Your task to perform on an android device: Open the map Image 0: 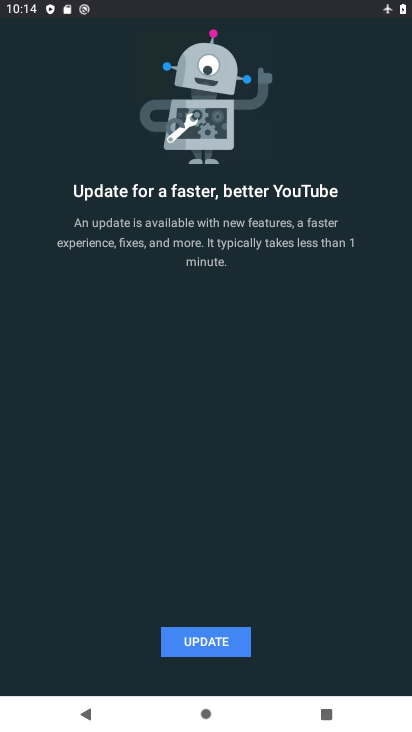
Step 0: press home button
Your task to perform on an android device: Open the map Image 1: 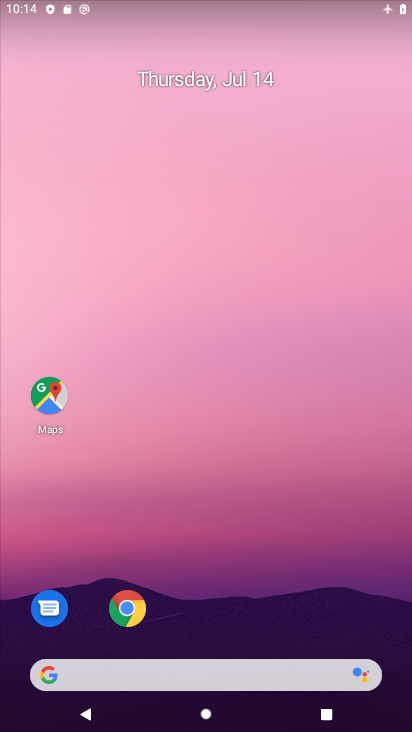
Step 1: drag from (255, 631) to (181, 8)
Your task to perform on an android device: Open the map Image 2: 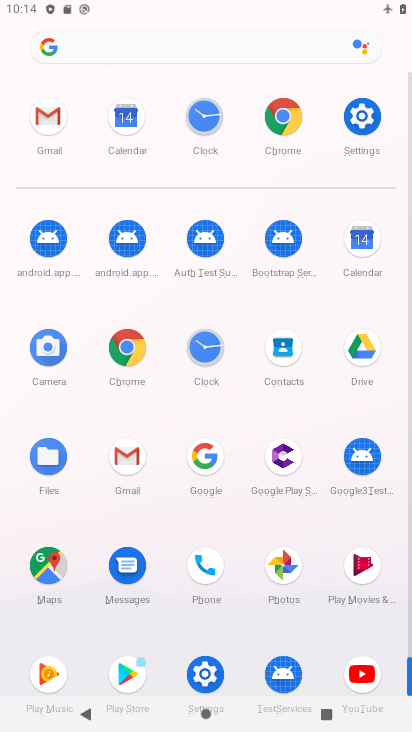
Step 2: click (62, 574)
Your task to perform on an android device: Open the map Image 3: 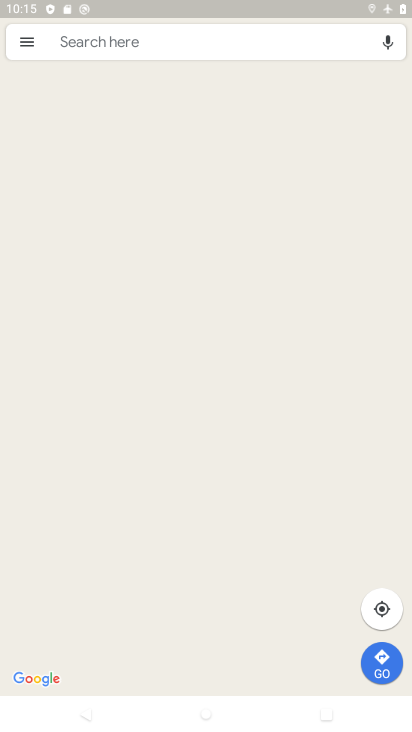
Step 3: task complete